Your task to perform on an android device: turn off data saver in the chrome app Image 0: 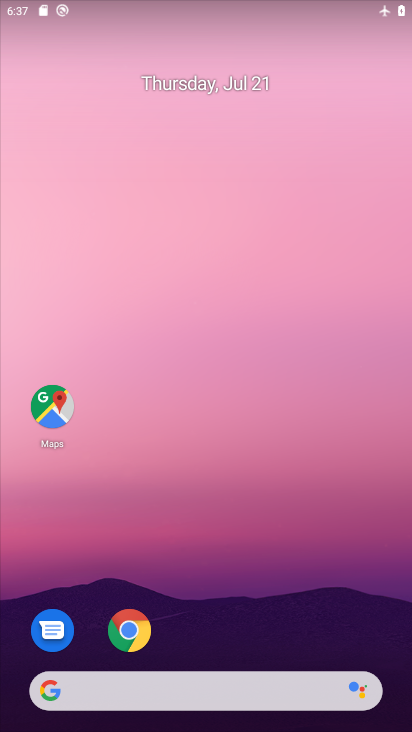
Step 0: click (126, 630)
Your task to perform on an android device: turn off data saver in the chrome app Image 1: 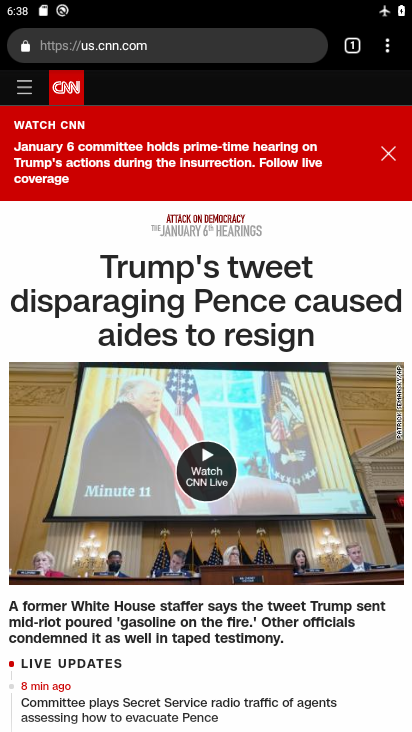
Step 1: click (389, 50)
Your task to perform on an android device: turn off data saver in the chrome app Image 2: 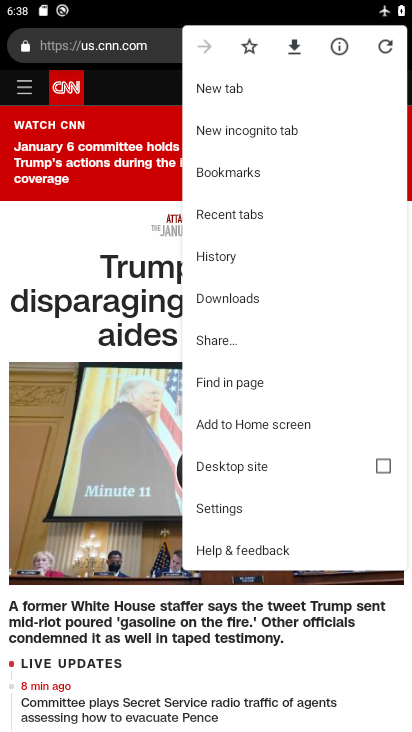
Step 2: click (224, 507)
Your task to perform on an android device: turn off data saver in the chrome app Image 3: 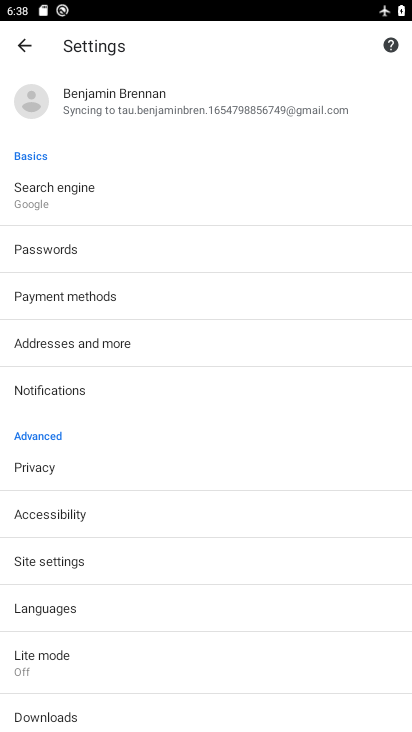
Step 3: click (52, 657)
Your task to perform on an android device: turn off data saver in the chrome app Image 4: 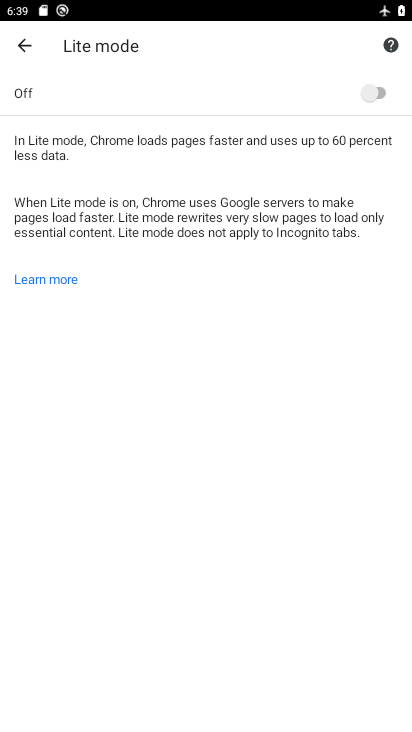
Step 4: task complete